Your task to perform on an android device: change the clock display to analog Image 0: 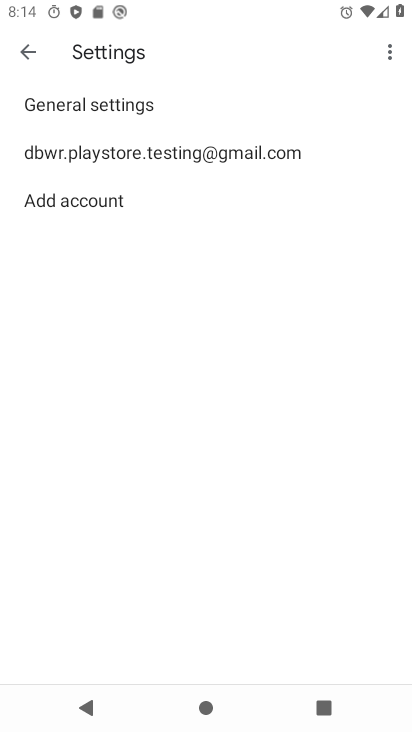
Step 0: press home button
Your task to perform on an android device: change the clock display to analog Image 1: 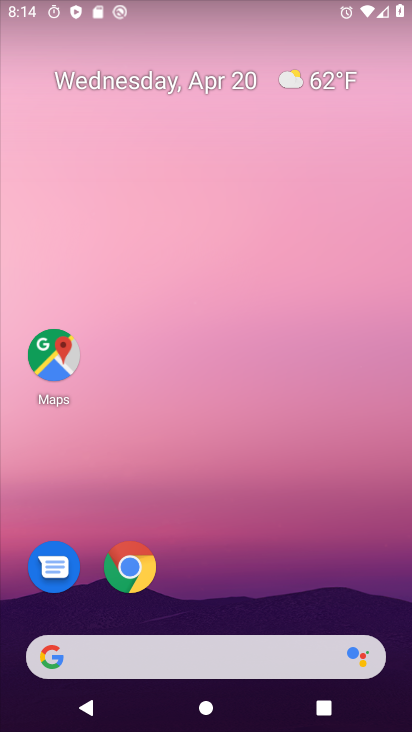
Step 1: drag from (263, 568) to (269, 6)
Your task to perform on an android device: change the clock display to analog Image 2: 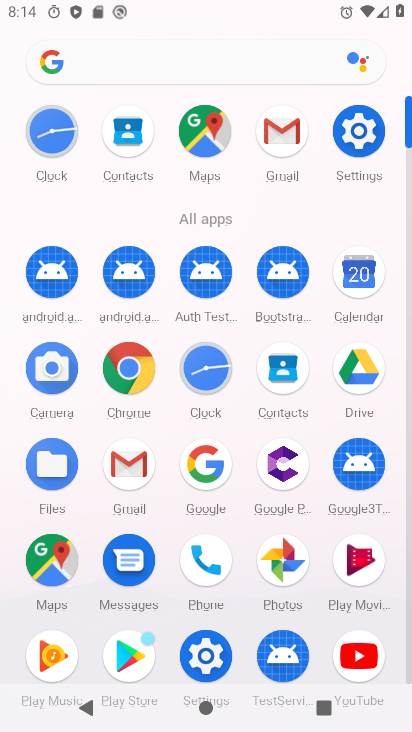
Step 2: click (48, 137)
Your task to perform on an android device: change the clock display to analog Image 3: 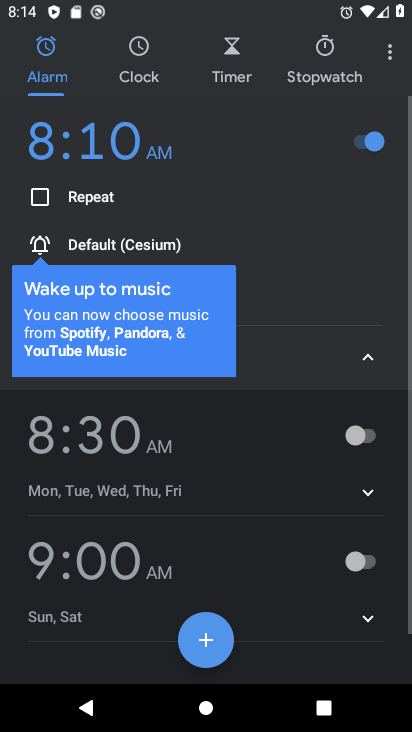
Step 3: click (388, 57)
Your task to perform on an android device: change the clock display to analog Image 4: 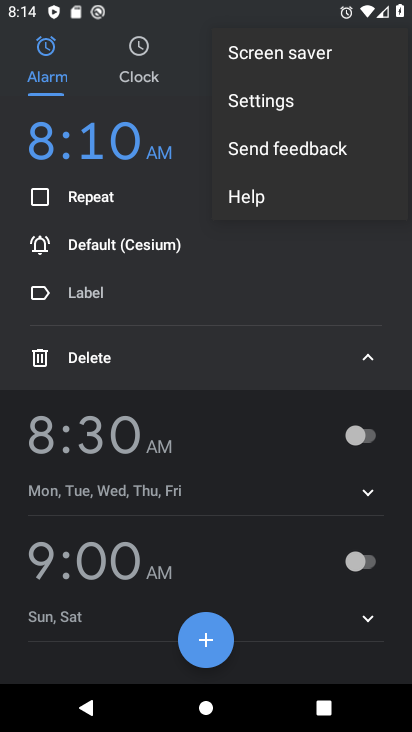
Step 4: click (268, 106)
Your task to perform on an android device: change the clock display to analog Image 5: 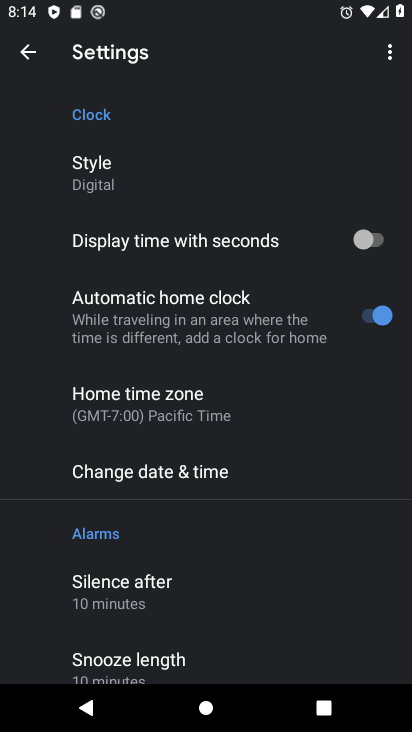
Step 5: click (98, 185)
Your task to perform on an android device: change the clock display to analog Image 6: 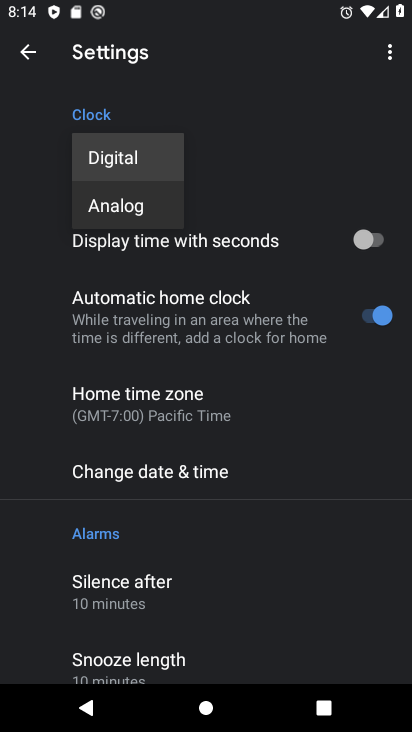
Step 6: click (110, 205)
Your task to perform on an android device: change the clock display to analog Image 7: 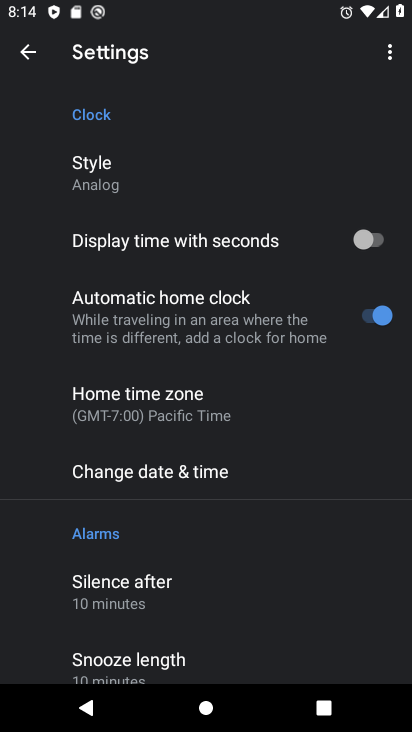
Step 7: task complete